Your task to perform on an android device: Empty the shopping cart on walmart.com. Search for dell xps on walmart.com, select the first entry, add it to the cart, then select checkout. Image 0: 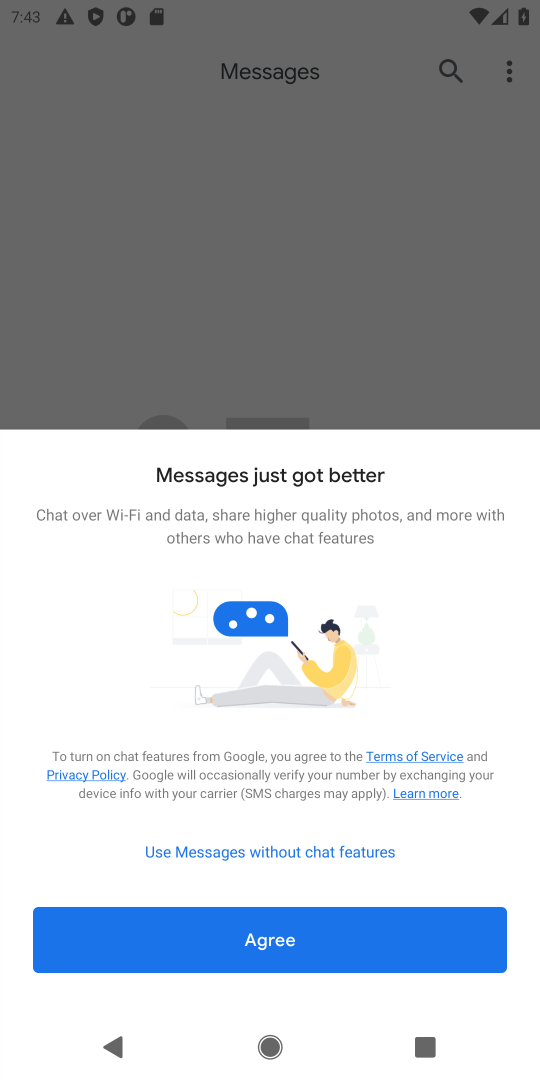
Step 0: press home button
Your task to perform on an android device: Empty the shopping cart on walmart.com. Search for dell xps on walmart.com, select the first entry, add it to the cart, then select checkout. Image 1: 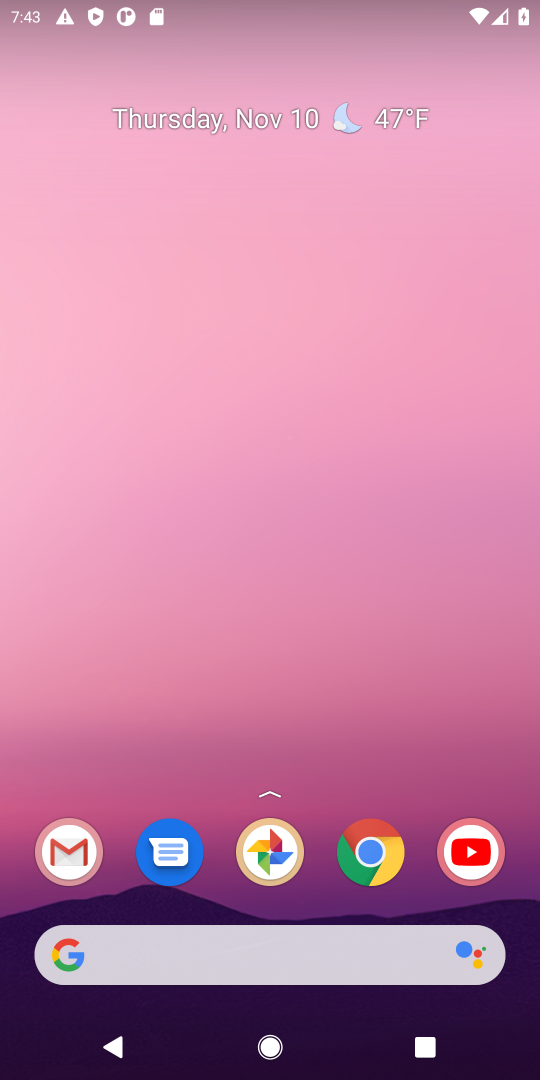
Step 1: click (382, 850)
Your task to perform on an android device: Empty the shopping cart on walmart.com. Search for dell xps on walmart.com, select the first entry, add it to the cart, then select checkout. Image 2: 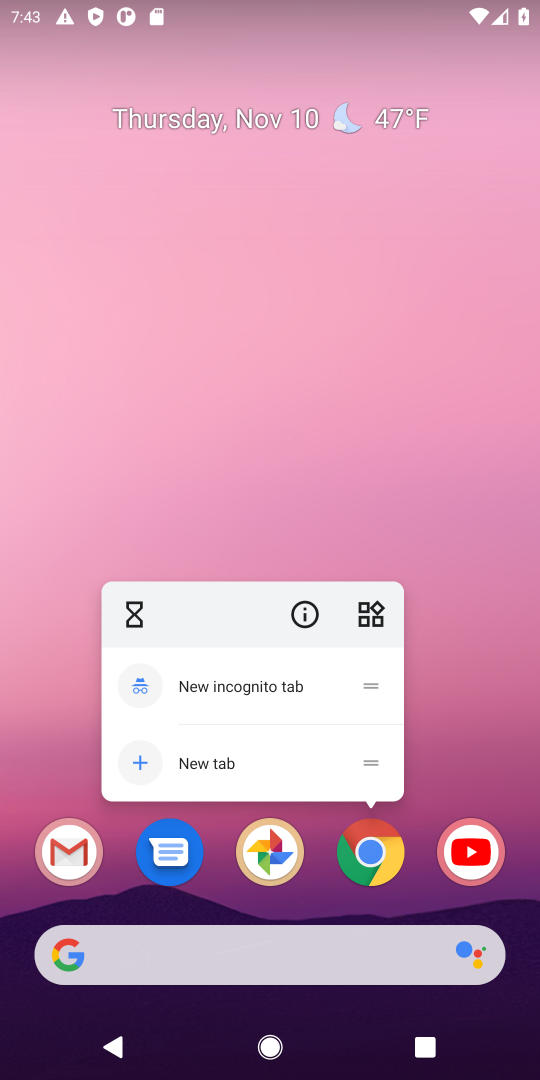
Step 2: click (367, 851)
Your task to perform on an android device: Empty the shopping cart on walmart.com. Search for dell xps on walmart.com, select the first entry, add it to the cart, then select checkout. Image 3: 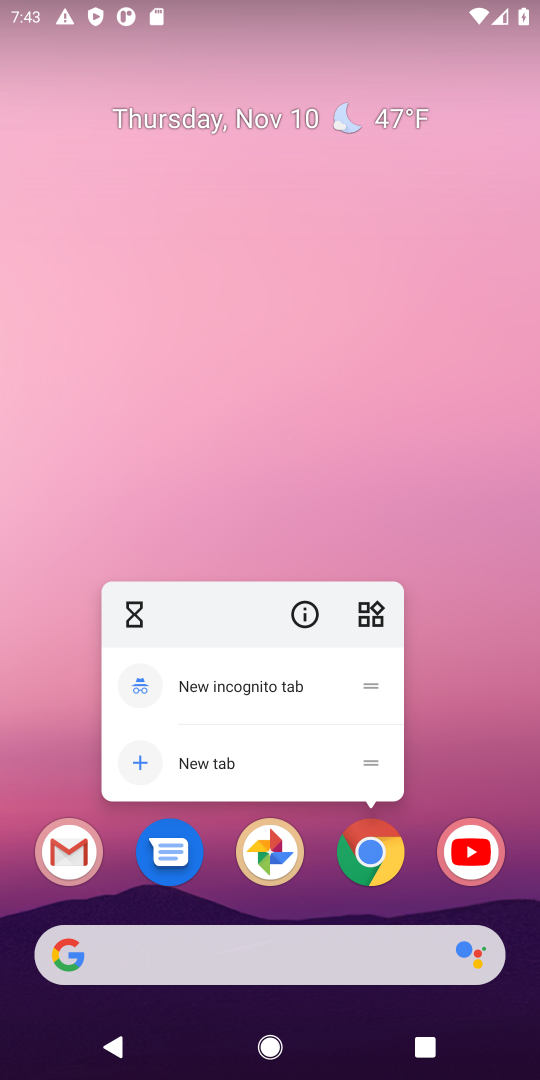
Step 3: click (367, 853)
Your task to perform on an android device: Empty the shopping cart on walmart.com. Search for dell xps on walmart.com, select the first entry, add it to the cart, then select checkout. Image 4: 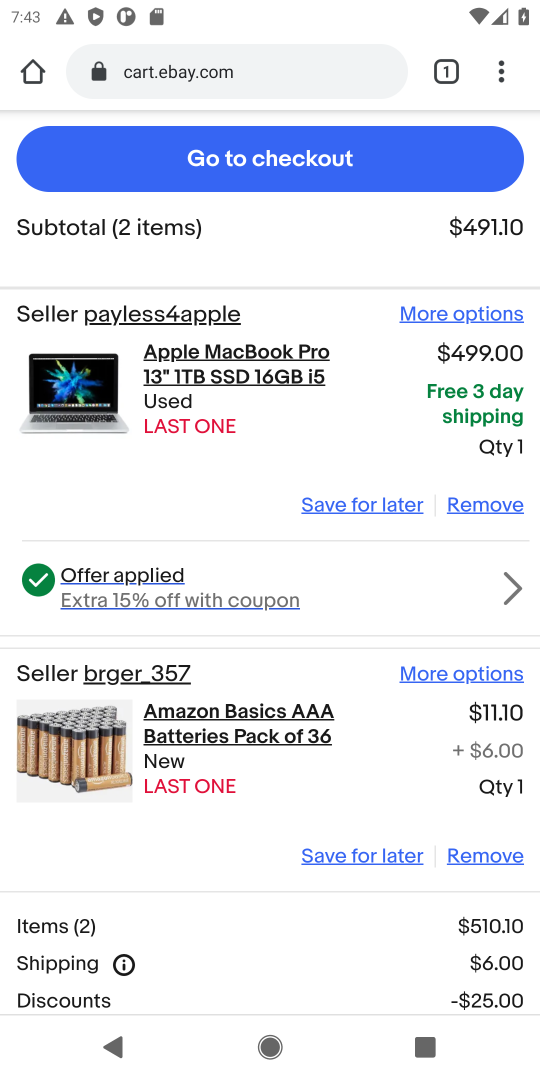
Step 4: click (283, 75)
Your task to perform on an android device: Empty the shopping cart on walmart.com. Search for dell xps on walmart.com, select the first entry, add it to the cart, then select checkout. Image 5: 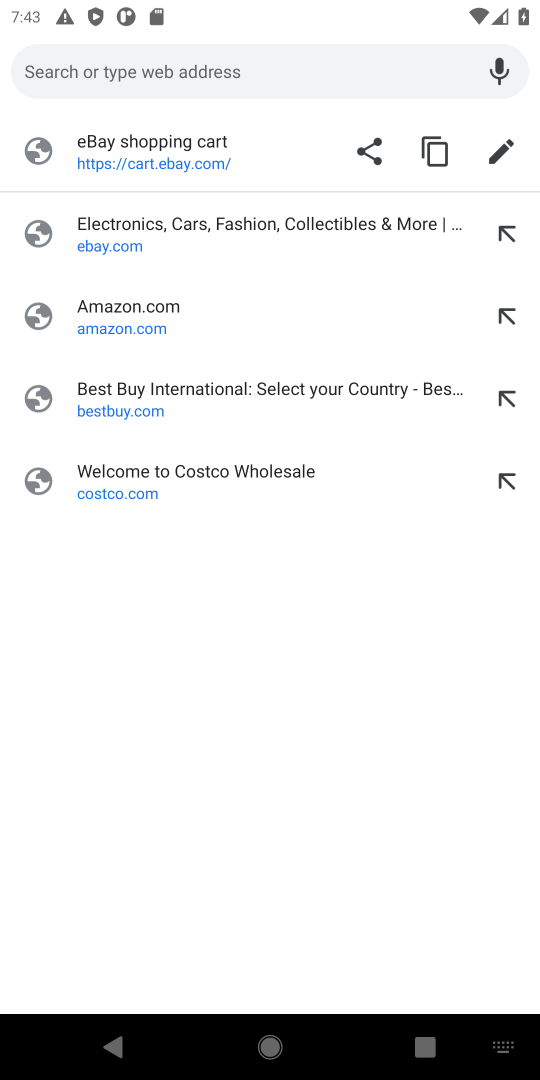
Step 5: type "walmart.com"
Your task to perform on an android device: Empty the shopping cart on walmart.com. Search for dell xps on walmart.com, select the first entry, add it to the cart, then select checkout. Image 6: 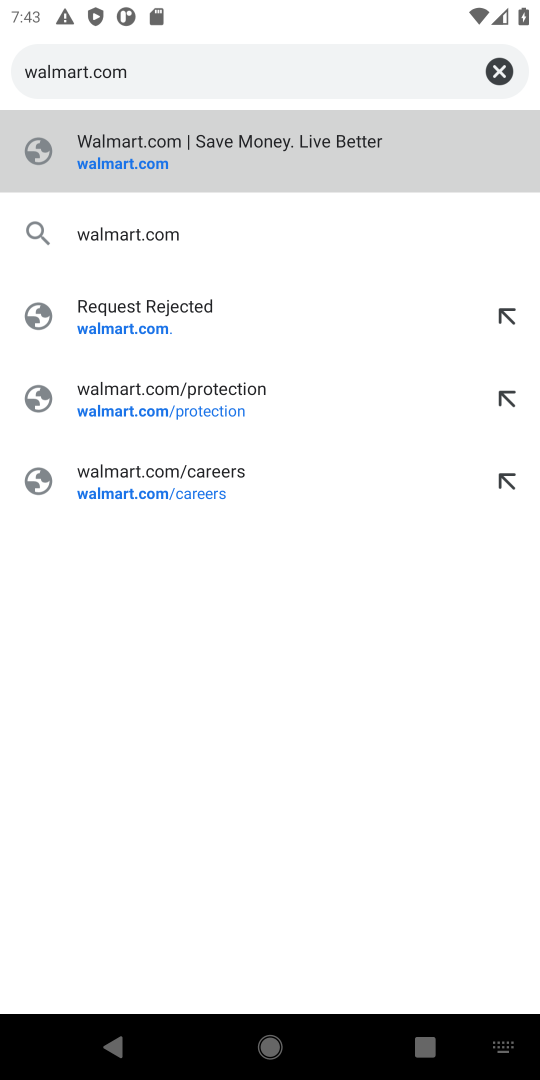
Step 6: press enter
Your task to perform on an android device: Empty the shopping cart on walmart.com. Search for dell xps on walmart.com, select the first entry, add it to the cart, then select checkout. Image 7: 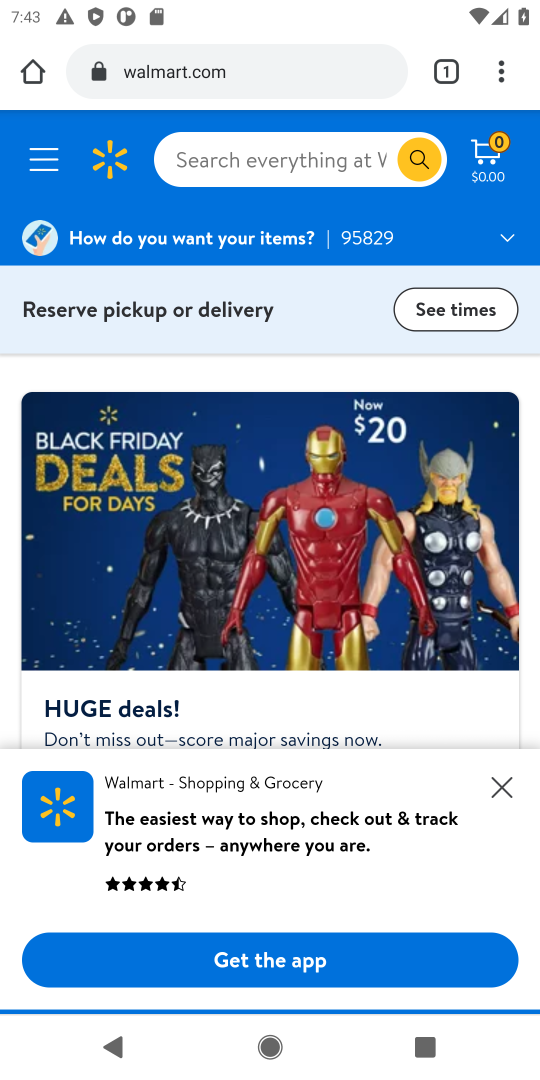
Step 7: click (498, 786)
Your task to perform on an android device: Empty the shopping cart on walmart.com. Search for dell xps on walmart.com, select the first entry, add it to the cart, then select checkout. Image 8: 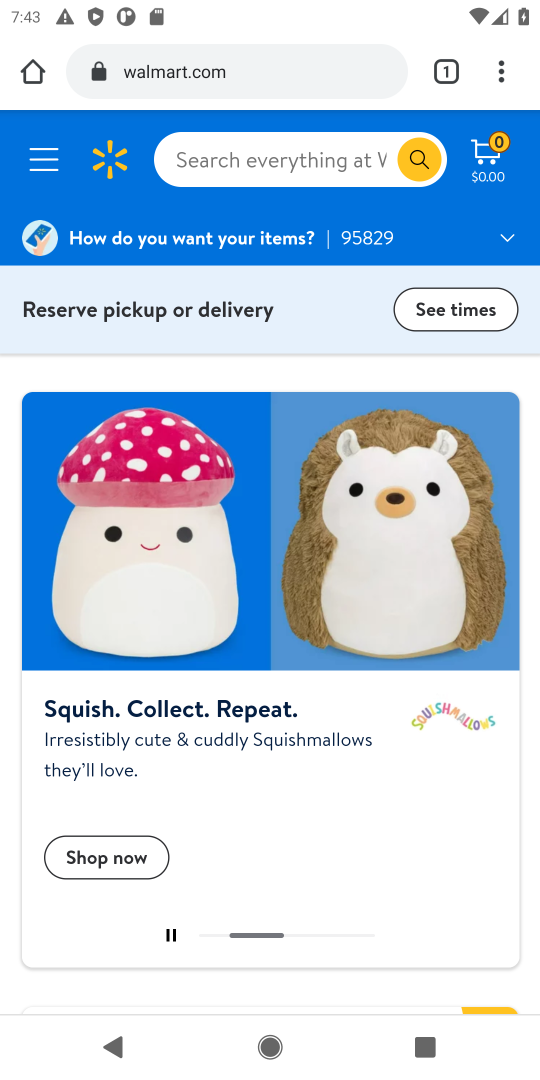
Step 8: click (254, 151)
Your task to perform on an android device: Empty the shopping cart on walmart.com. Search for dell xps on walmart.com, select the first entry, add it to the cart, then select checkout. Image 9: 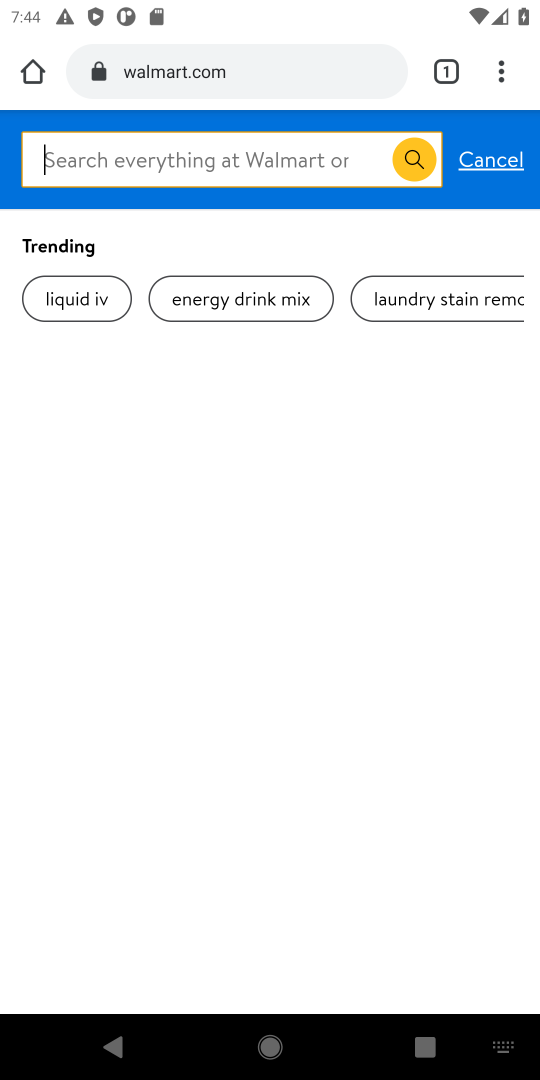
Step 9: type "dell xps"
Your task to perform on an android device: Empty the shopping cart on walmart.com. Search for dell xps on walmart.com, select the first entry, add it to the cart, then select checkout. Image 10: 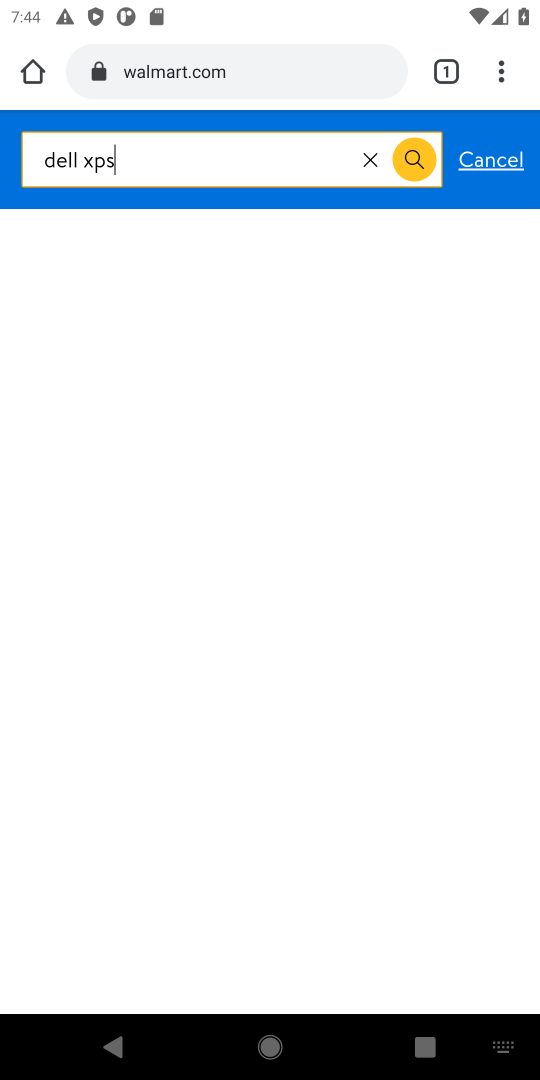
Step 10: press enter
Your task to perform on an android device: Empty the shopping cart on walmart.com. Search for dell xps on walmart.com, select the first entry, add it to the cart, then select checkout. Image 11: 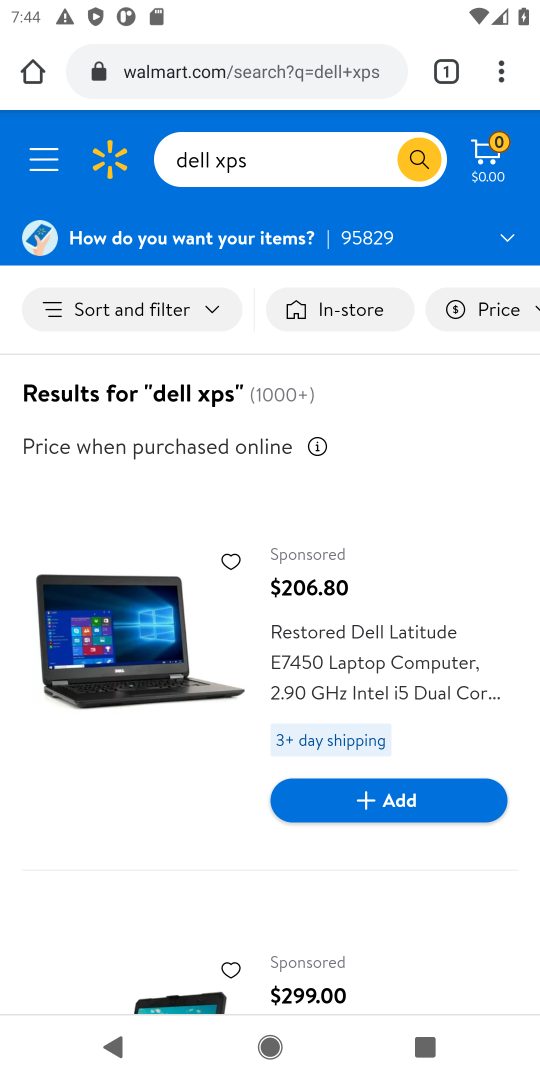
Step 11: task complete